Your task to perform on an android device: When is my next appointment? Image 0: 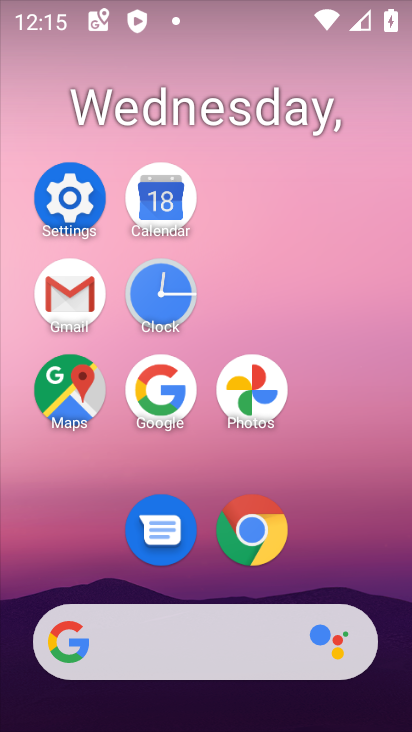
Step 0: click (152, 204)
Your task to perform on an android device: When is my next appointment? Image 1: 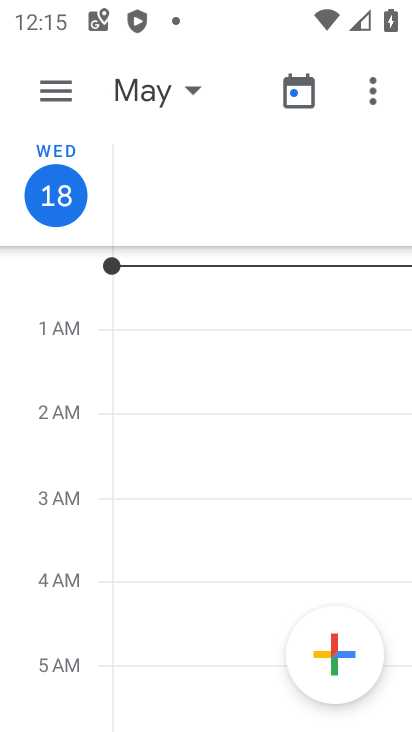
Step 1: drag from (334, 195) to (8, 157)
Your task to perform on an android device: When is my next appointment? Image 2: 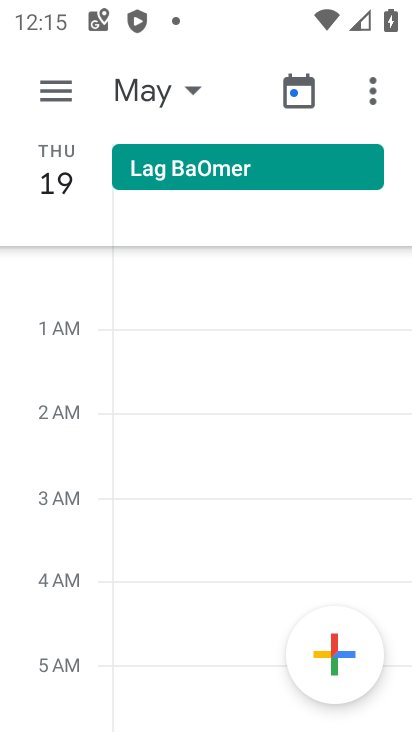
Step 2: click (31, 174)
Your task to perform on an android device: When is my next appointment? Image 3: 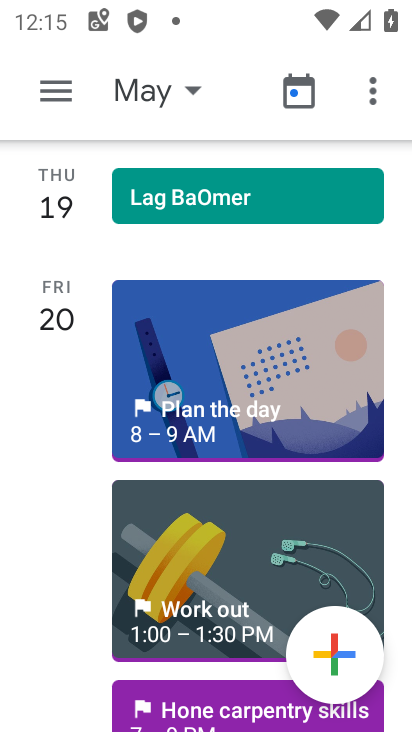
Step 3: task complete